Your task to perform on an android device: check google app version Image 0: 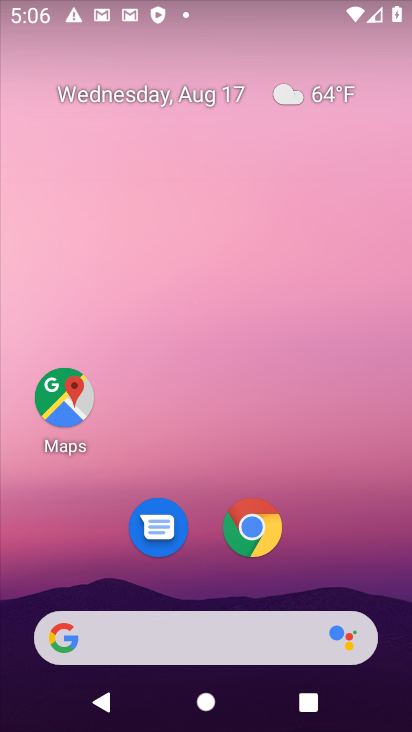
Step 0: drag from (164, 446) to (163, 159)
Your task to perform on an android device: check google app version Image 1: 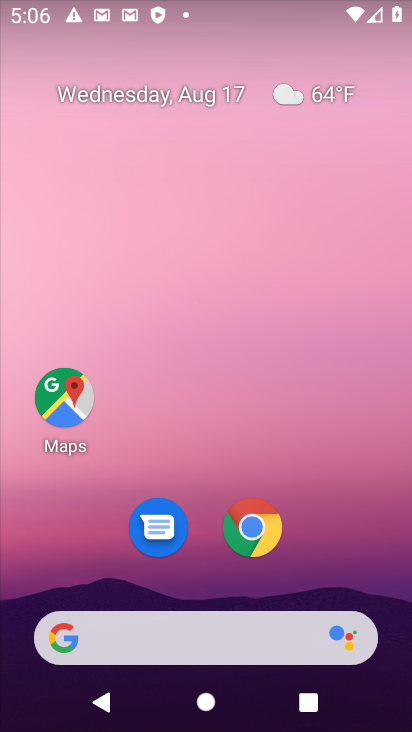
Step 1: drag from (239, 589) to (237, 152)
Your task to perform on an android device: check google app version Image 2: 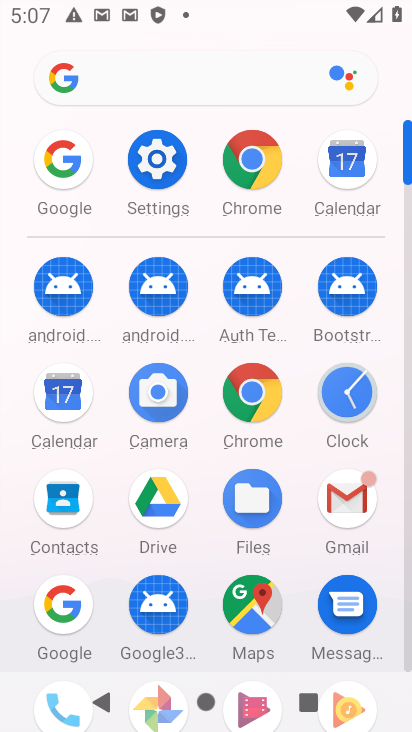
Step 2: click (61, 609)
Your task to perform on an android device: check google app version Image 3: 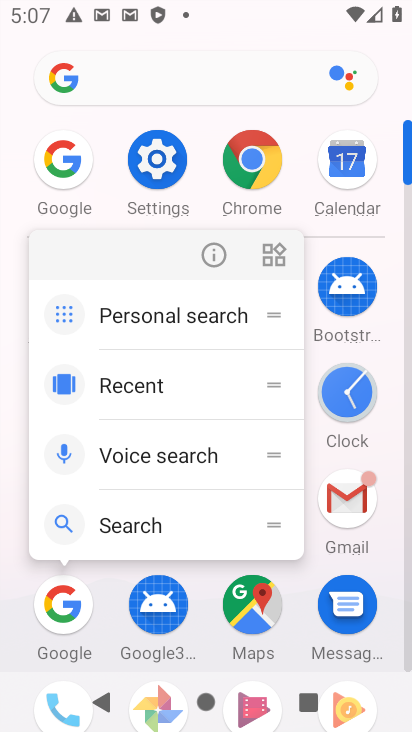
Step 3: click (215, 256)
Your task to perform on an android device: check google app version Image 4: 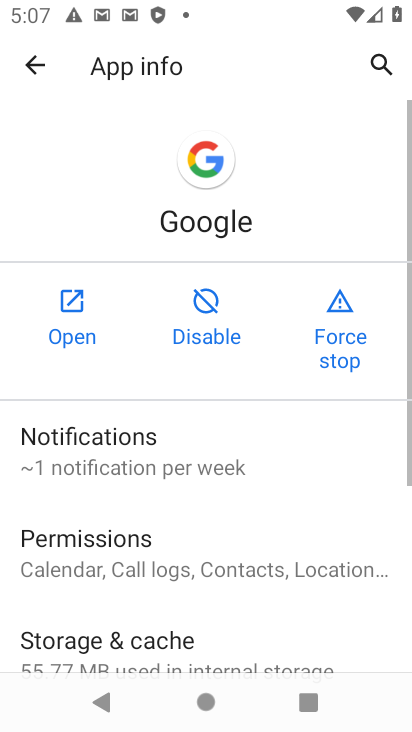
Step 4: drag from (136, 595) to (173, 84)
Your task to perform on an android device: check google app version Image 5: 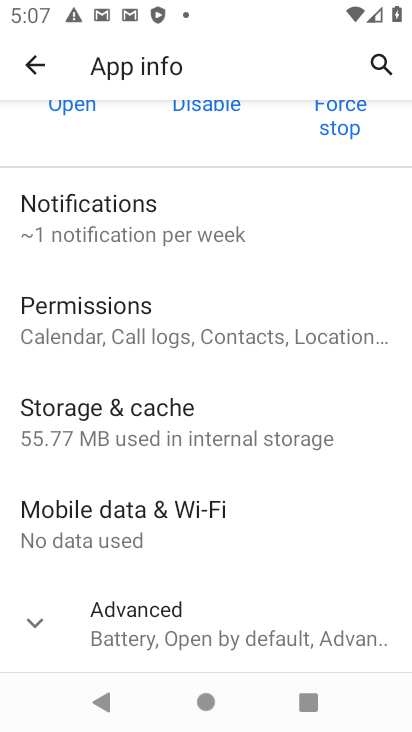
Step 5: click (152, 624)
Your task to perform on an android device: check google app version Image 6: 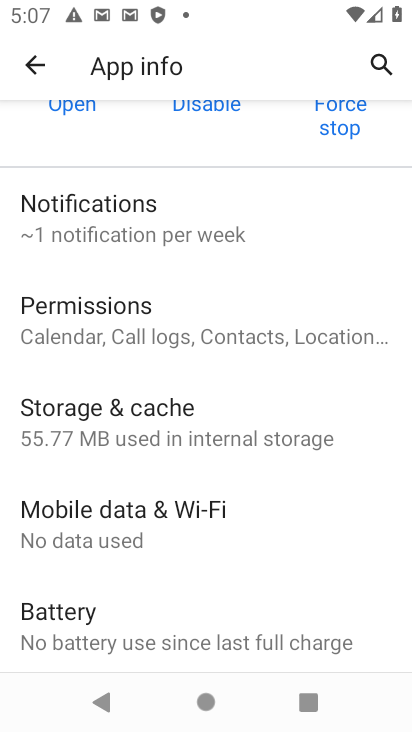
Step 6: task complete